Your task to perform on an android device: What's on my calendar today? Image 0: 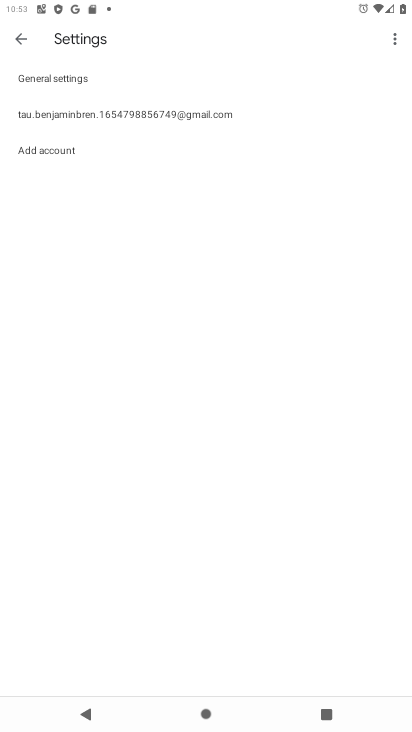
Step 0: press home button
Your task to perform on an android device: What's on my calendar today? Image 1: 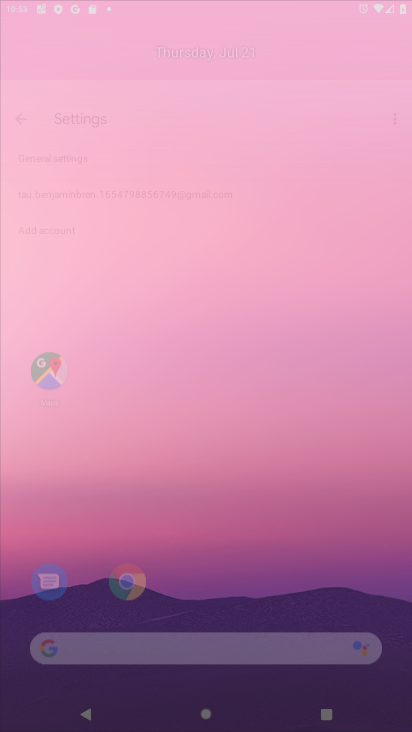
Step 1: drag from (394, 682) to (135, 55)
Your task to perform on an android device: What's on my calendar today? Image 2: 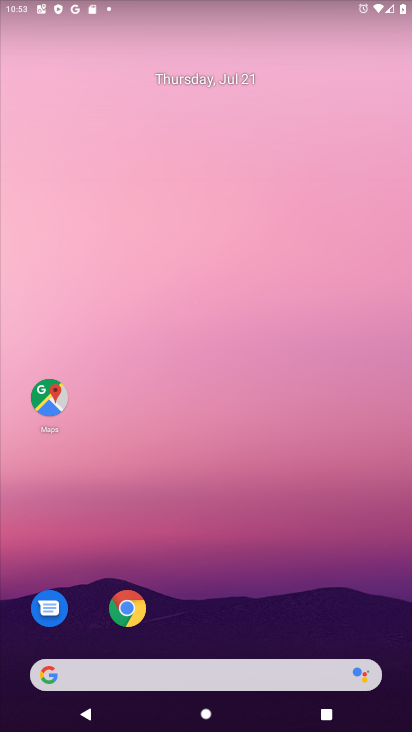
Step 2: drag from (316, 626) to (175, 50)
Your task to perform on an android device: What's on my calendar today? Image 3: 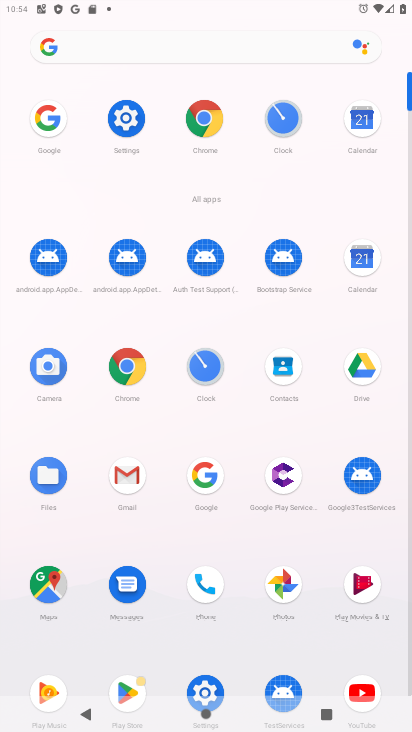
Step 3: click (349, 266)
Your task to perform on an android device: What's on my calendar today? Image 4: 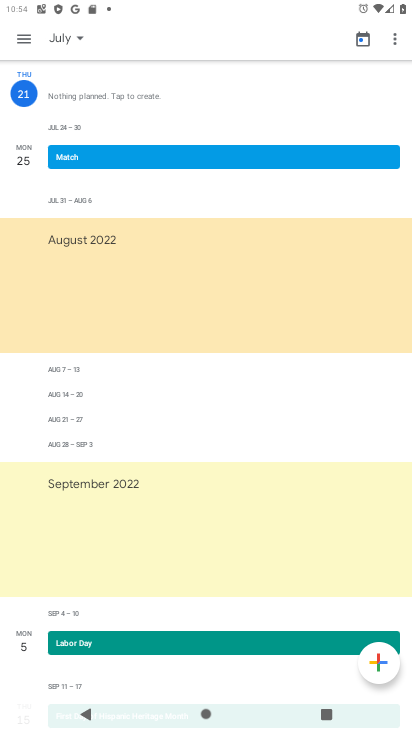
Step 4: click (58, 33)
Your task to perform on an android device: What's on my calendar today? Image 5: 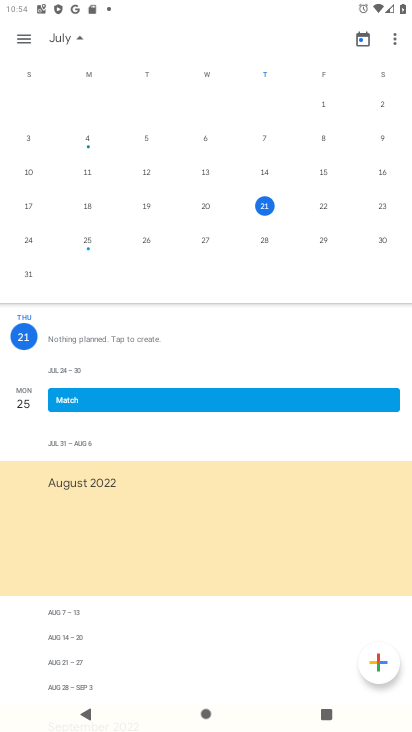
Step 5: click (319, 205)
Your task to perform on an android device: What's on my calendar today? Image 6: 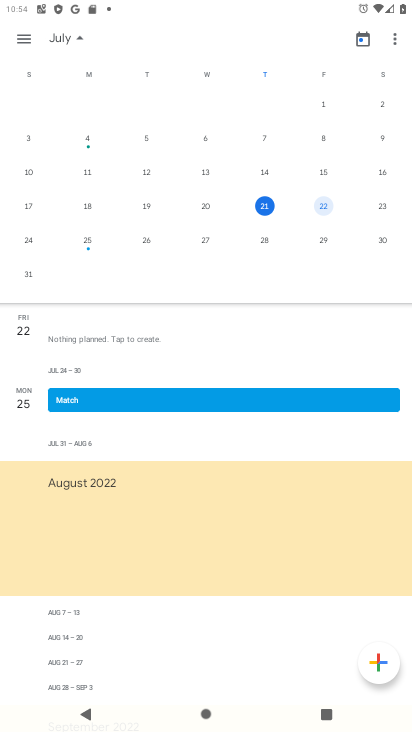
Step 6: click (95, 347)
Your task to perform on an android device: What's on my calendar today? Image 7: 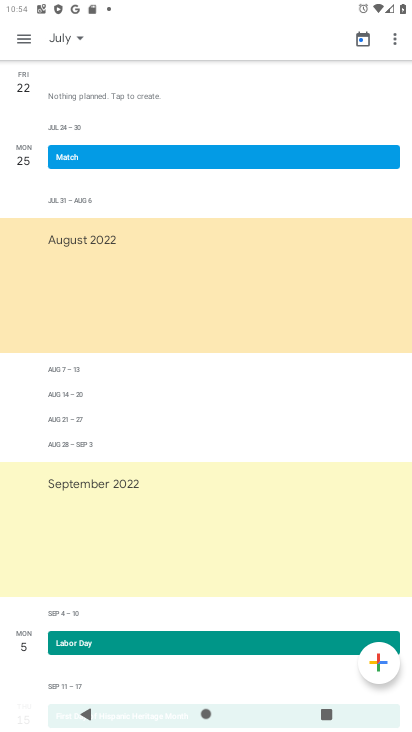
Step 7: task complete